Your task to perform on an android device: allow notifications from all sites in the chrome app Image 0: 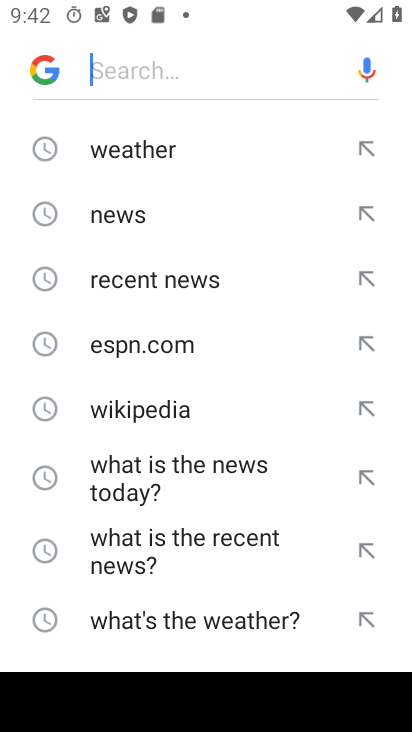
Step 0: press home button
Your task to perform on an android device: allow notifications from all sites in the chrome app Image 1: 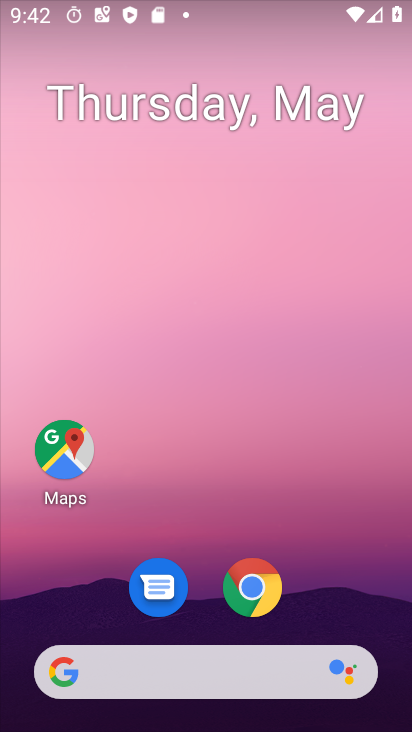
Step 1: click (259, 593)
Your task to perform on an android device: allow notifications from all sites in the chrome app Image 2: 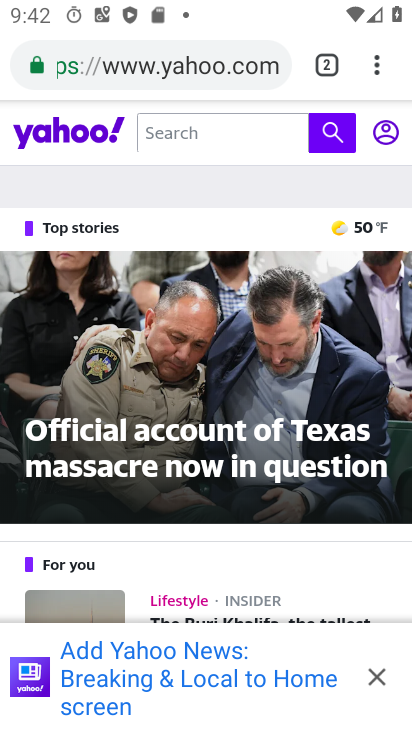
Step 2: click (377, 65)
Your task to perform on an android device: allow notifications from all sites in the chrome app Image 3: 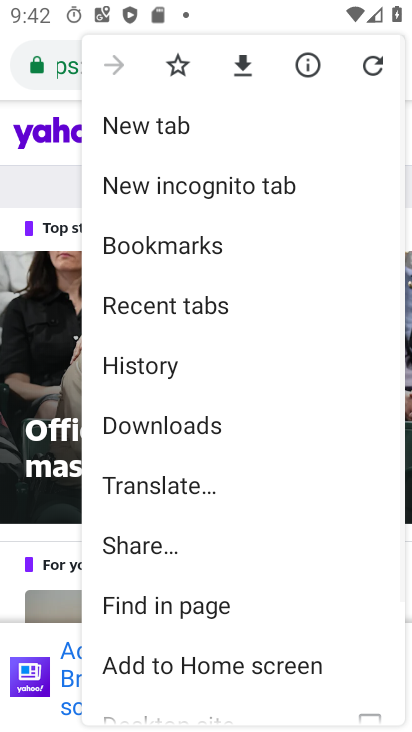
Step 3: drag from (259, 591) to (243, 215)
Your task to perform on an android device: allow notifications from all sites in the chrome app Image 4: 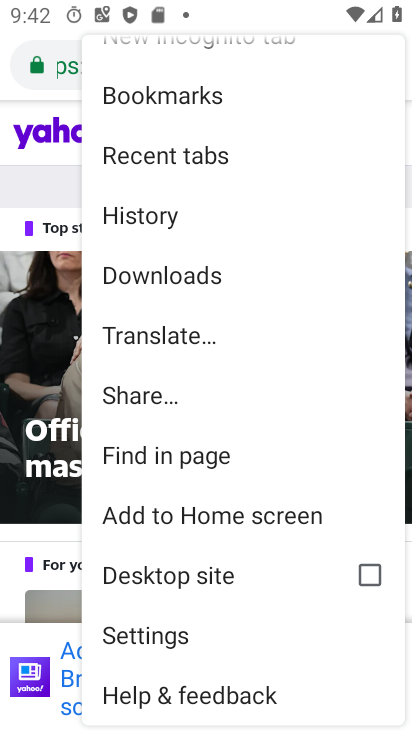
Step 4: click (145, 636)
Your task to perform on an android device: allow notifications from all sites in the chrome app Image 5: 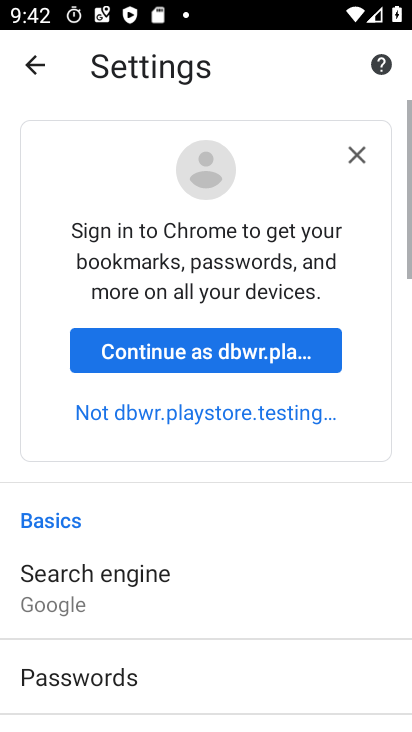
Step 5: drag from (167, 636) to (204, 192)
Your task to perform on an android device: allow notifications from all sites in the chrome app Image 6: 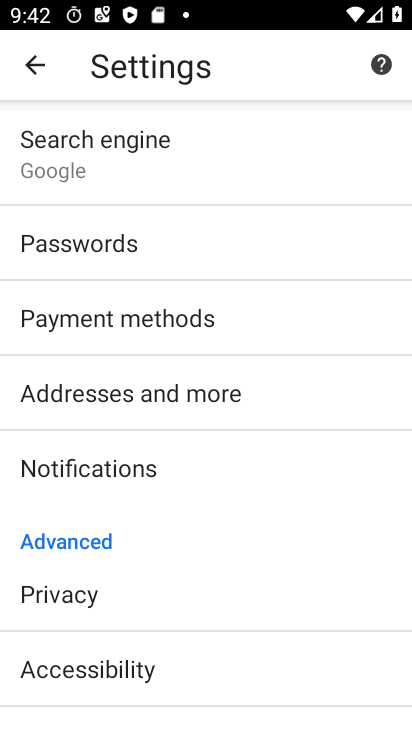
Step 6: drag from (164, 551) to (167, 242)
Your task to perform on an android device: allow notifications from all sites in the chrome app Image 7: 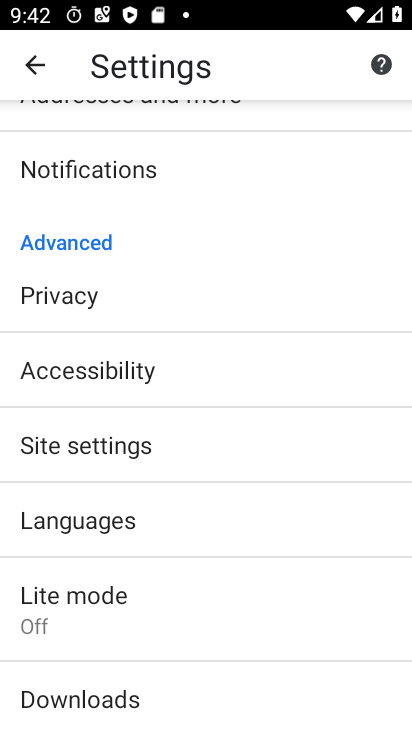
Step 7: click (104, 449)
Your task to perform on an android device: allow notifications from all sites in the chrome app Image 8: 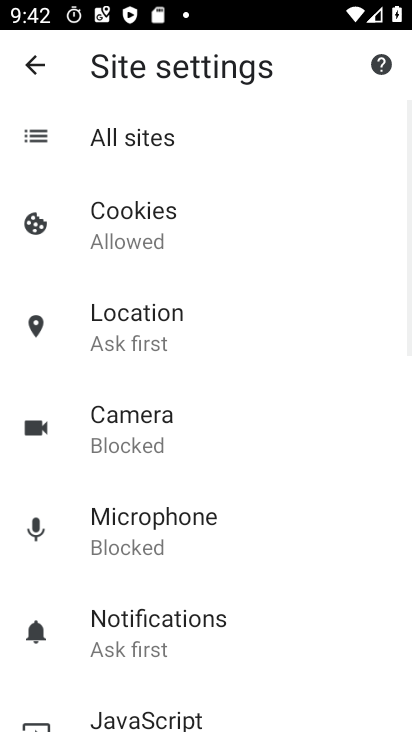
Step 8: drag from (270, 615) to (288, 331)
Your task to perform on an android device: allow notifications from all sites in the chrome app Image 9: 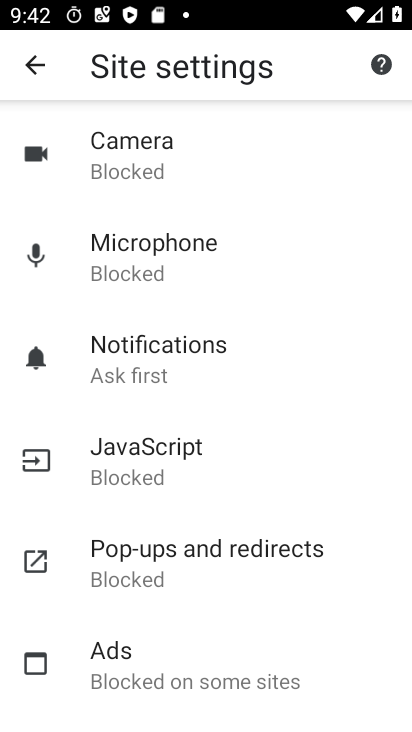
Step 9: click (142, 360)
Your task to perform on an android device: allow notifications from all sites in the chrome app Image 10: 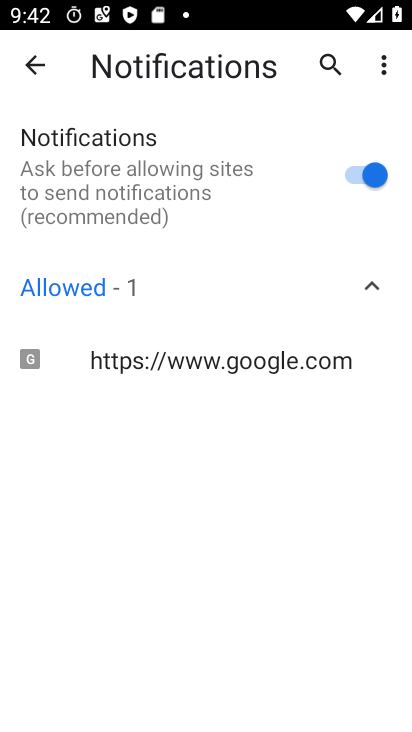
Step 10: task complete